Your task to perform on an android device: Open the calendar and show me this week's events? Image 0: 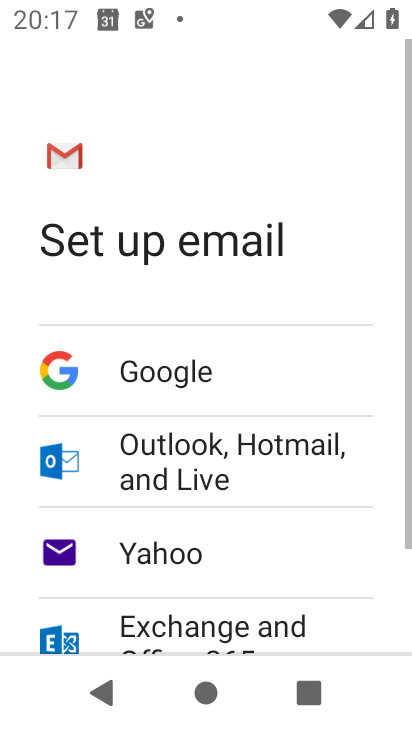
Step 0: press home button
Your task to perform on an android device: Open the calendar and show me this week's events? Image 1: 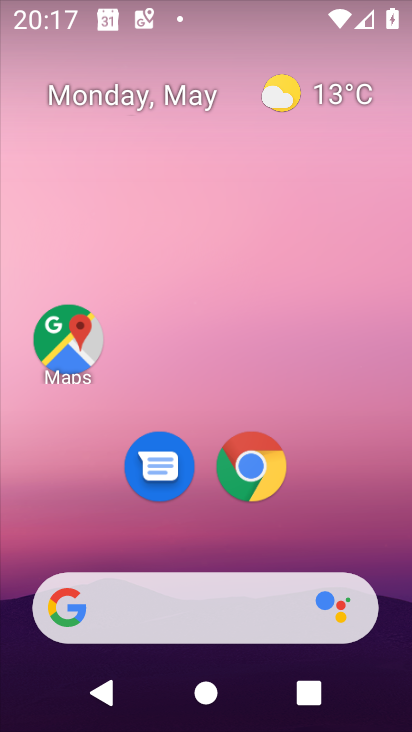
Step 1: drag from (316, 408) to (312, 253)
Your task to perform on an android device: Open the calendar and show me this week's events? Image 2: 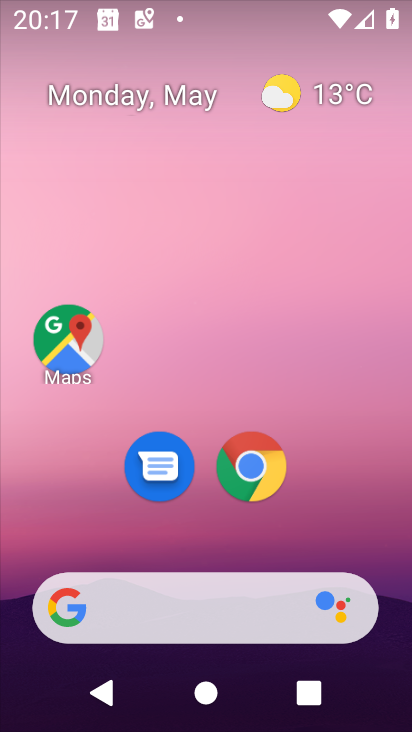
Step 2: drag from (270, 545) to (329, 257)
Your task to perform on an android device: Open the calendar and show me this week's events? Image 3: 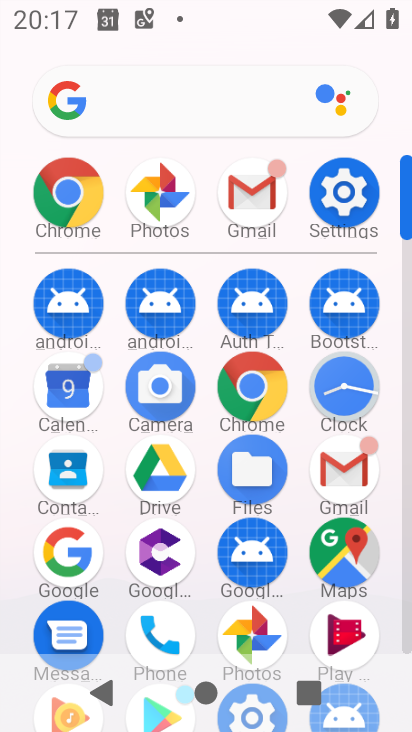
Step 3: click (69, 388)
Your task to perform on an android device: Open the calendar and show me this week's events? Image 4: 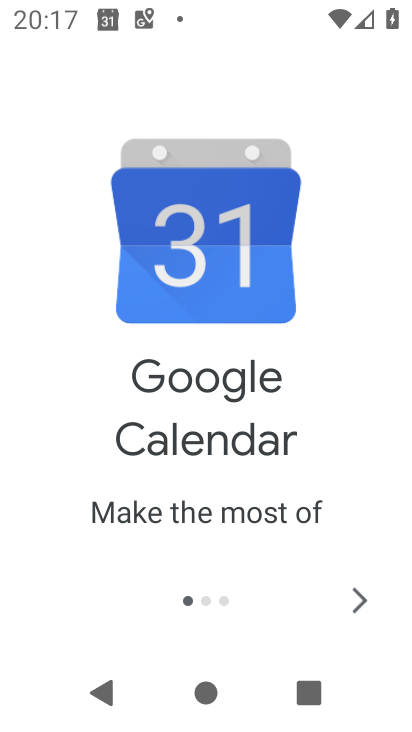
Step 4: click (349, 582)
Your task to perform on an android device: Open the calendar and show me this week's events? Image 5: 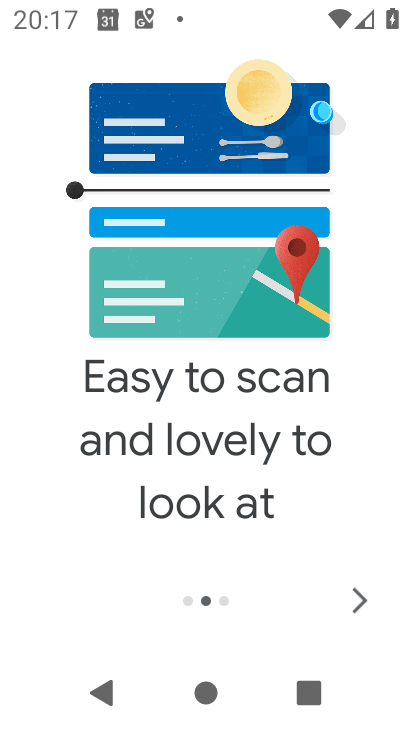
Step 5: click (349, 582)
Your task to perform on an android device: Open the calendar and show me this week's events? Image 6: 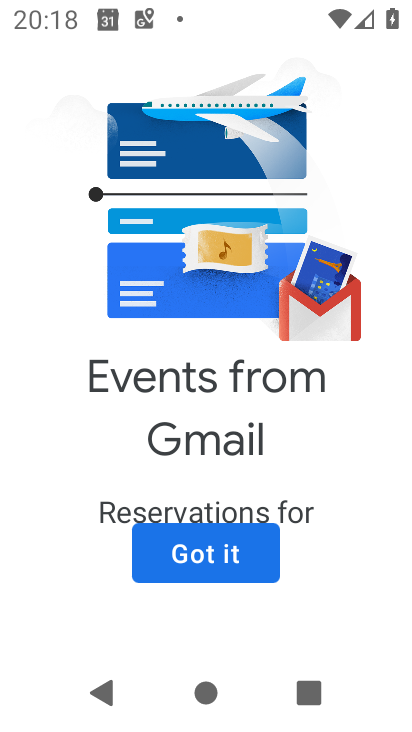
Step 6: click (348, 585)
Your task to perform on an android device: Open the calendar and show me this week's events? Image 7: 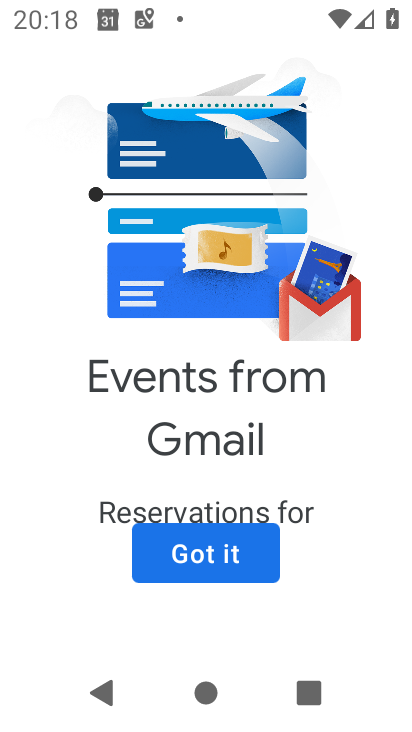
Step 7: click (162, 539)
Your task to perform on an android device: Open the calendar and show me this week's events? Image 8: 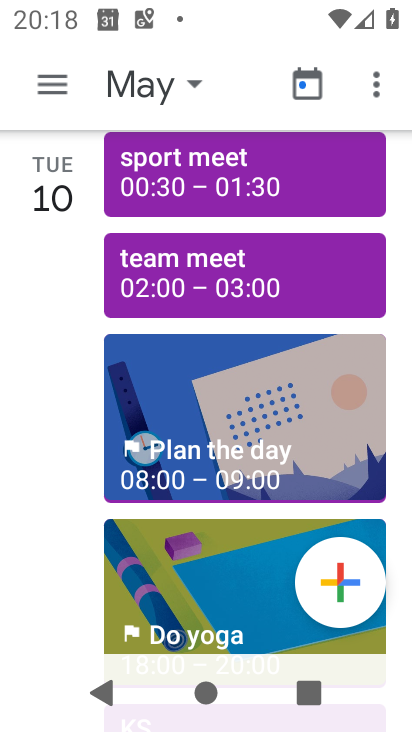
Step 8: click (59, 83)
Your task to perform on an android device: Open the calendar and show me this week's events? Image 9: 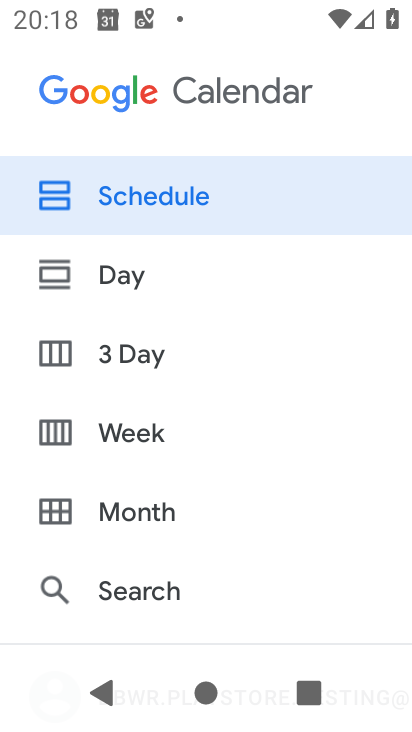
Step 9: click (168, 497)
Your task to perform on an android device: Open the calendar and show me this week's events? Image 10: 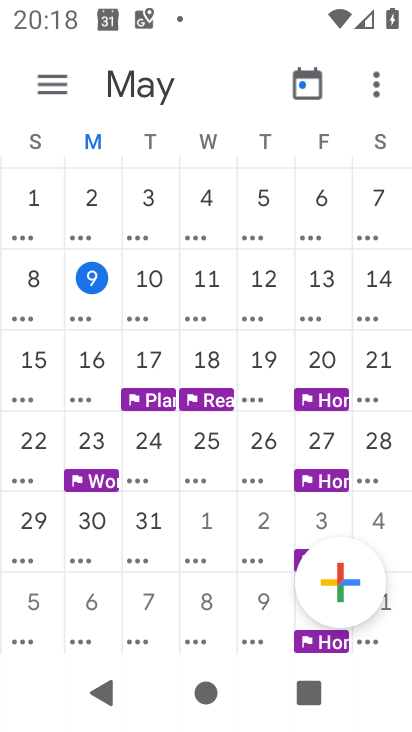
Step 10: click (139, 291)
Your task to perform on an android device: Open the calendar and show me this week's events? Image 11: 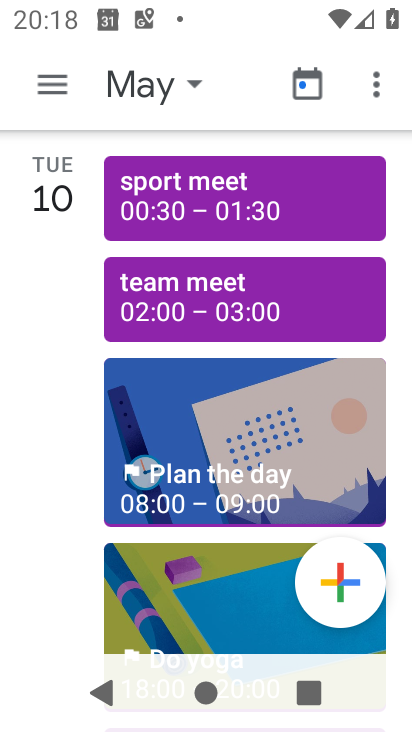
Step 11: click (51, 71)
Your task to perform on an android device: Open the calendar and show me this week's events? Image 12: 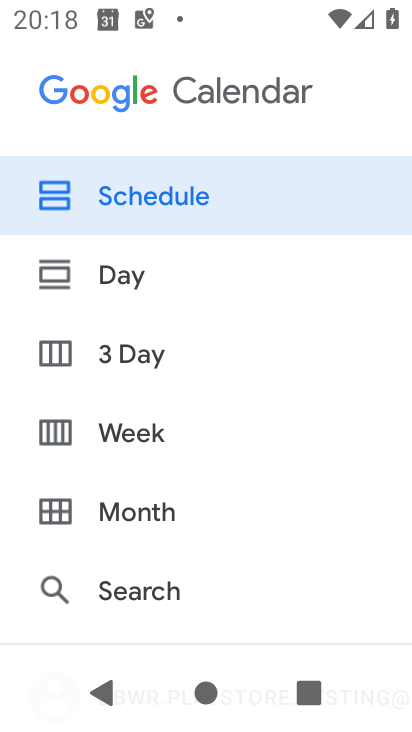
Step 12: click (109, 429)
Your task to perform on an android device: Open the calendar and show me this week's events? Image 13: 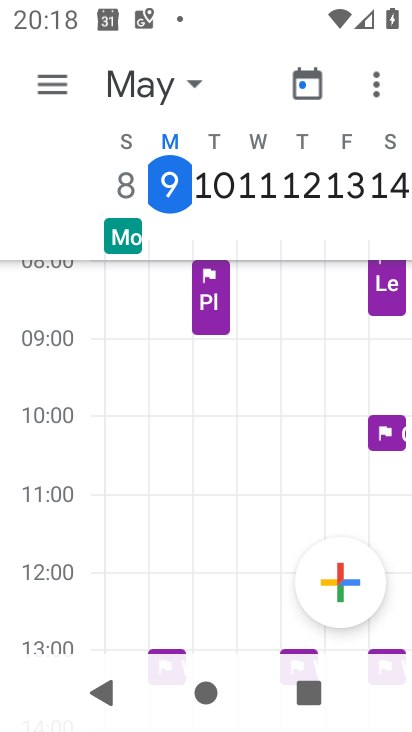
Step 13: task complete